Your task to perform on an android device: Open maps Image 0: 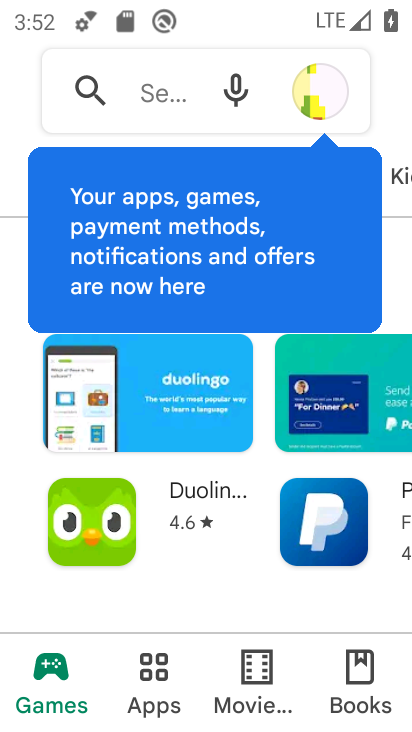
Step 0: press home button
Your task to perform on an android device: Open maps Image 1: 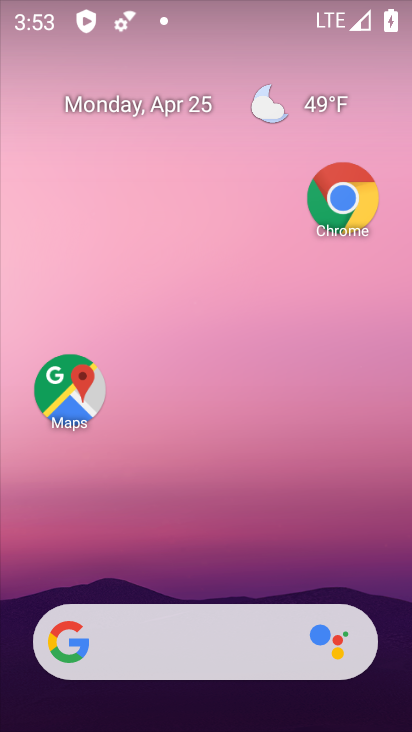
Step 1: click (67, 411)
Your task to perform on an android device: Open maps Image 2: 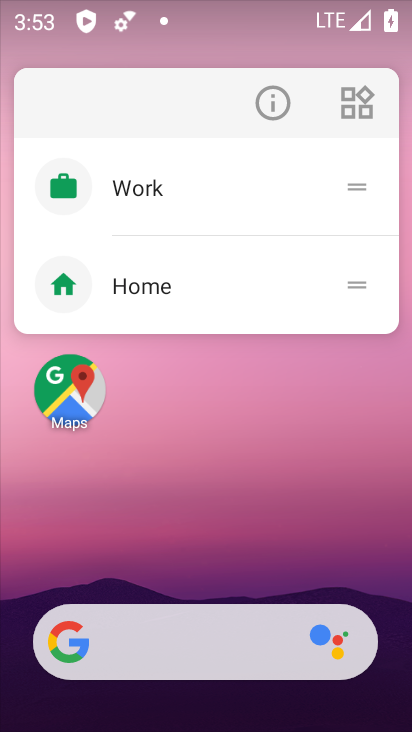
Step 2: click (70, 399)
Your task to perform on an android device: Open maps Image 3: 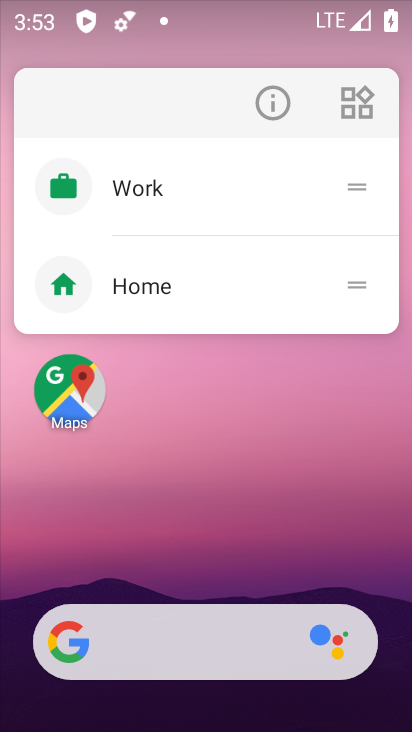
Step 3: click (77, 404)
Your task to perform on an android device: Open maps Image 4: 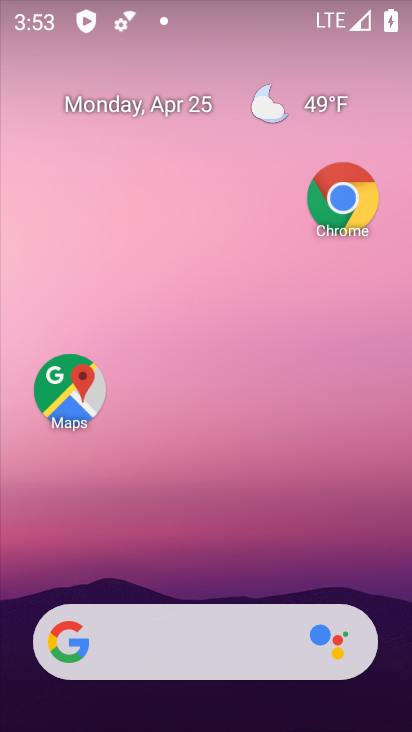
Step 4: click (77, 404)
Your task to perform on an android device: Open maps Image 5: 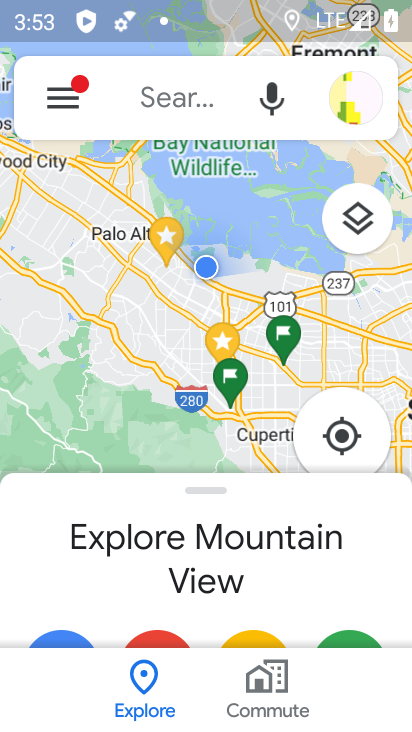
Step 5: task complete